Your task to perform on an android device: stop showing notifications on the lock screen Image 0: 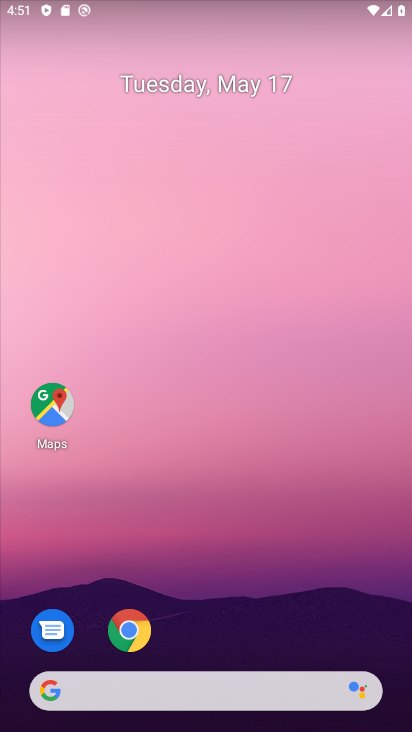
Step 0: drag from (339, 640) to (269, 68)
Your task to perform on an android device: stop showing notifications on the lock screen Image 1: 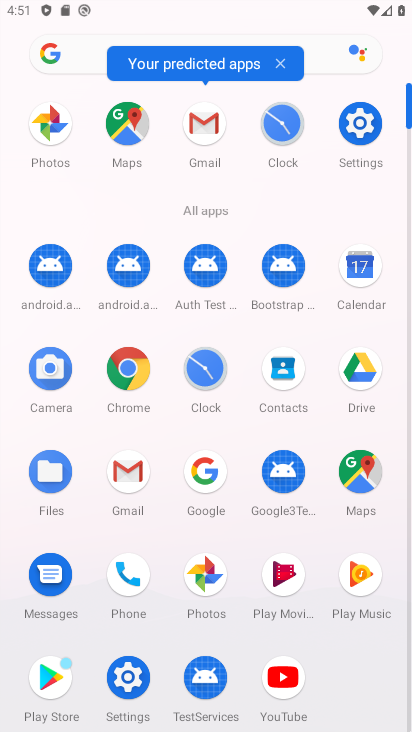
Step 1: click (363, 133)
Your task to perform on an android device: stop showing notifications on the lock screen Image 2: 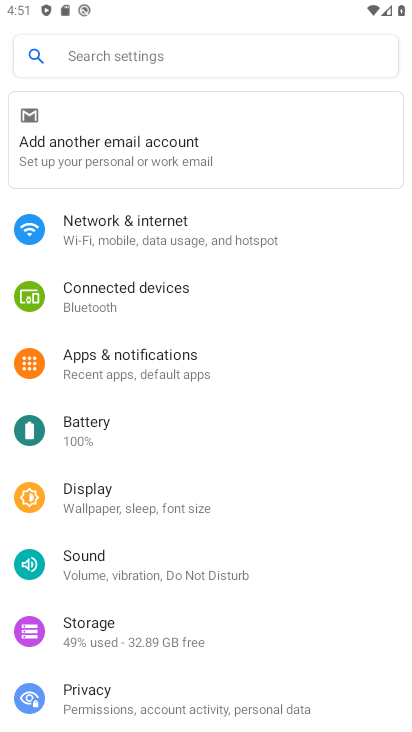
Step 2: click (164, 358)
Your task to perform on an android device: stop showing notifications on the lock screen Image 3: 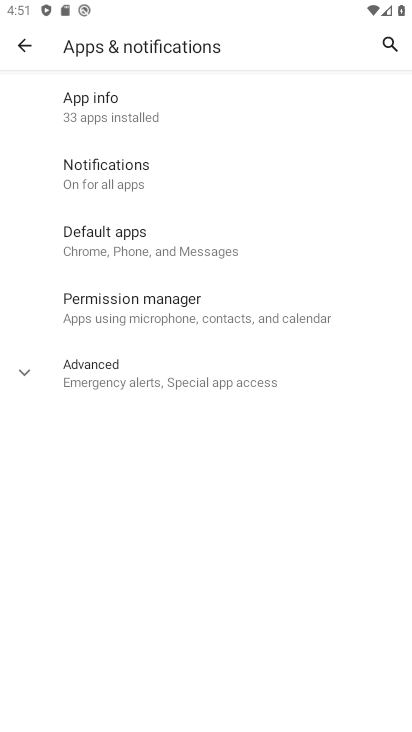
Step 3: click (121, 181)
Your task to perform on an android device: stop showing notifications on the lock screen Image 4: 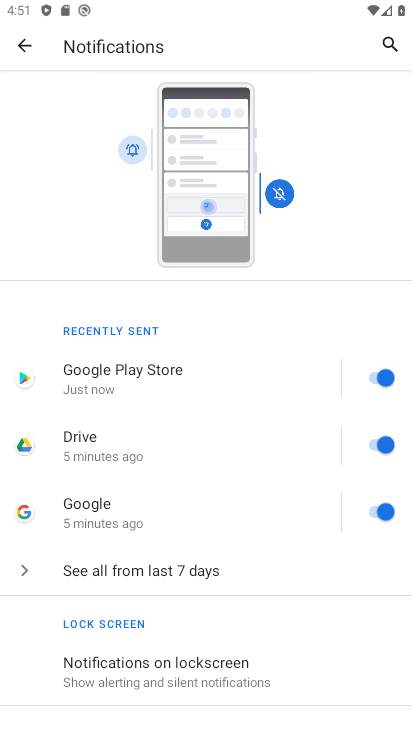
Step 4: click (202, 685)
Your task to perform on an android device: stop showing notifications on the lock screen Image 5: 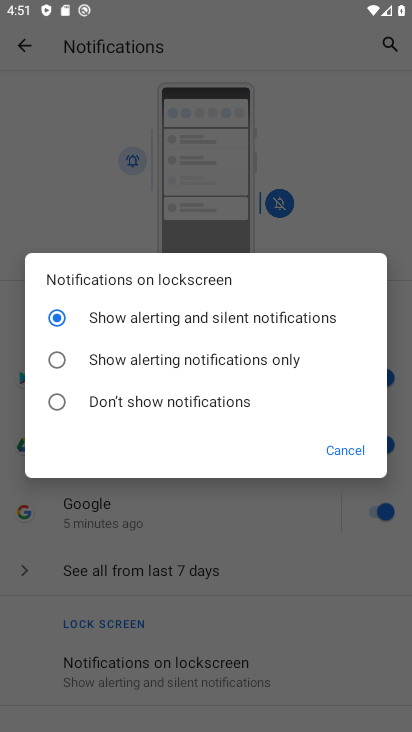
Step 5: click (189, 393)
Your task to perform on an android device: stop showing notifications on the lock screen Image 6: 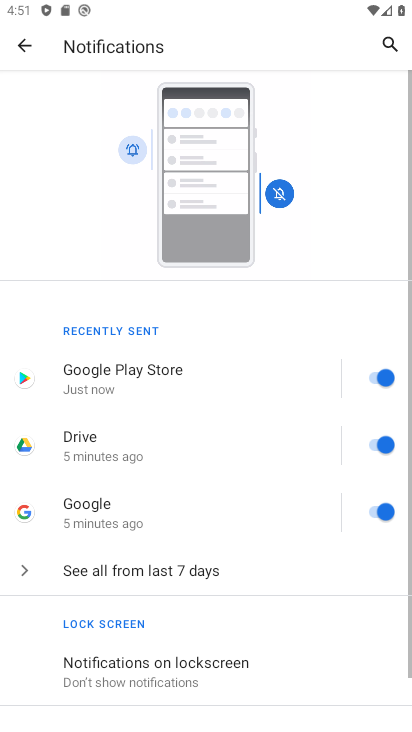
Step 6: task complete